Your task to perform on an android device: set default search engine in the chrome app Image 0: 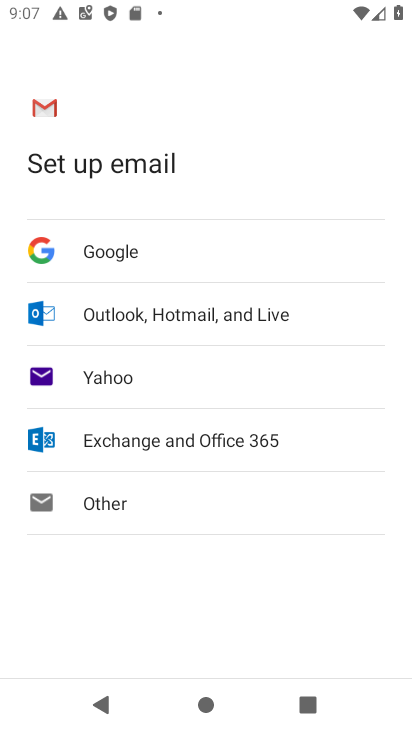
Step 0: press home button
Your task to perform on an android device: set default search engine in the chrome app Image 1: 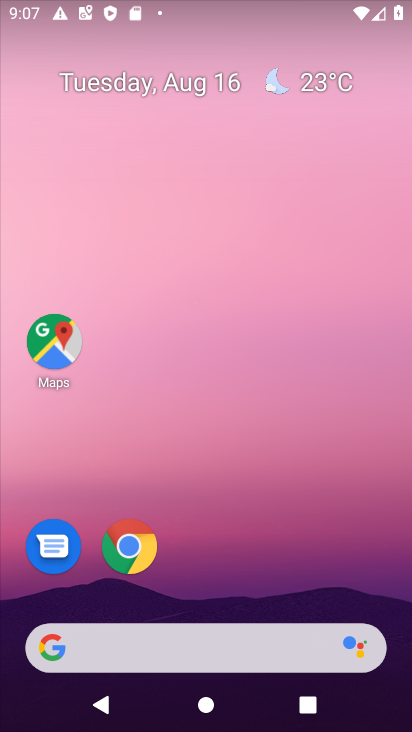
Step 1: click (132, 548)
Your task to perform on an android device: set default search engine in the chrome app Image 2: 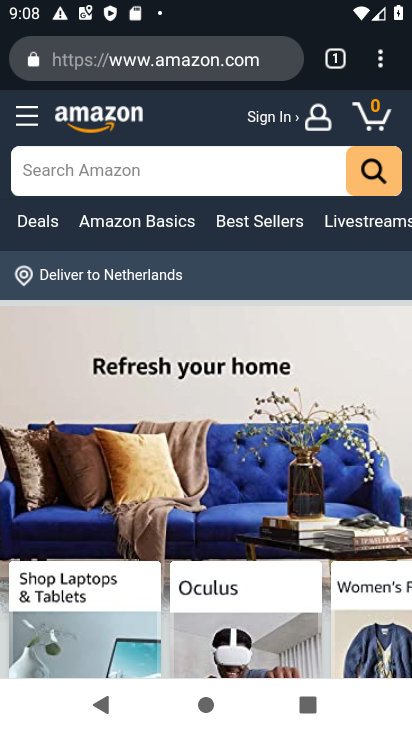
Step 2: click (382, 63)
Your task to perform on an android device: set default search engine in the chrome app Image 3: 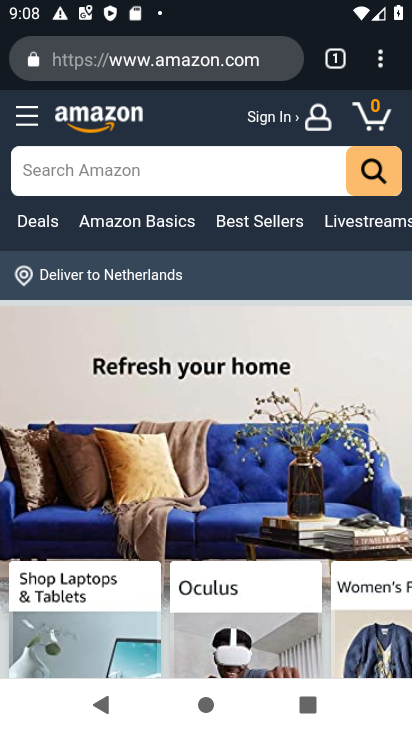
Step 3: click (382, 69)
Your task to perform on an android device: set default search engine in the chrome app Image 4: 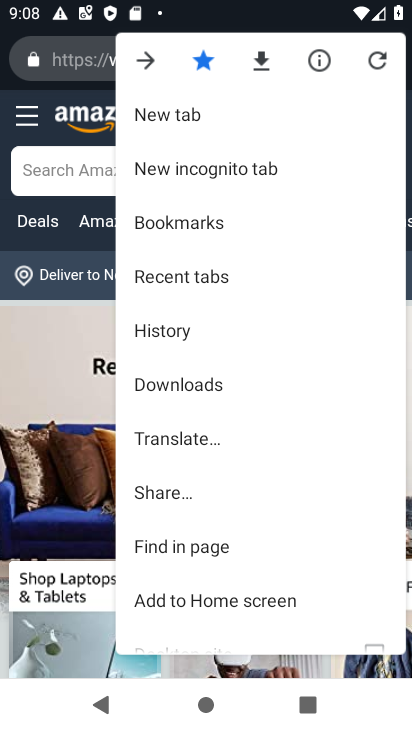
Step 4: drag from (254, 549) to (266, 121)
Your task to perform on an android device: set default search engine in the chrome app Image 5: 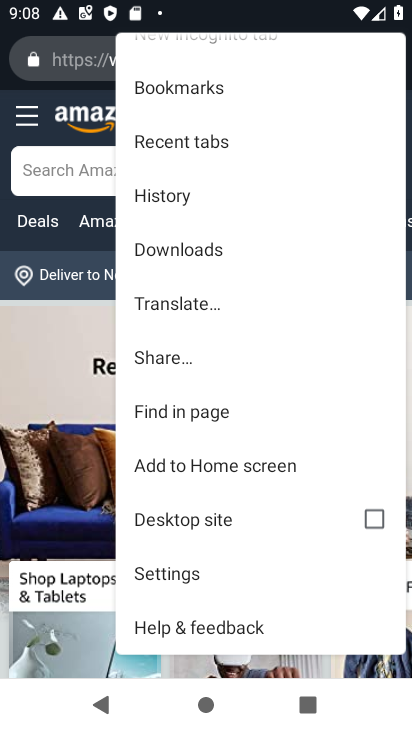
Step 5: click (204, 570)
Your task to perform on an android device: set default search engine in the chrome app Image 6: 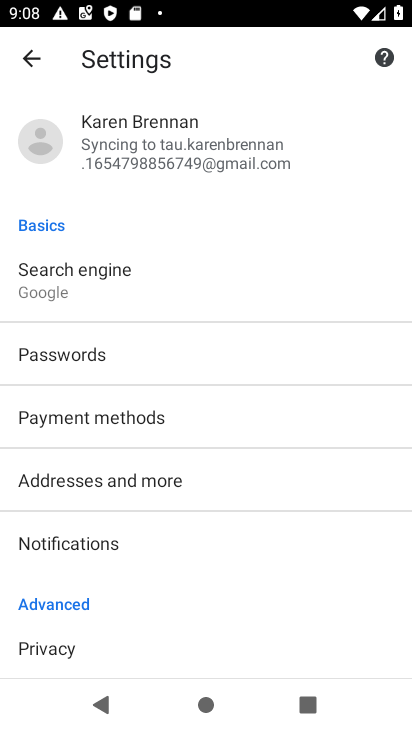
Step 6: click (81, 280)
Your task to perform on an android device: set default search engine in the chrome app Image 7: 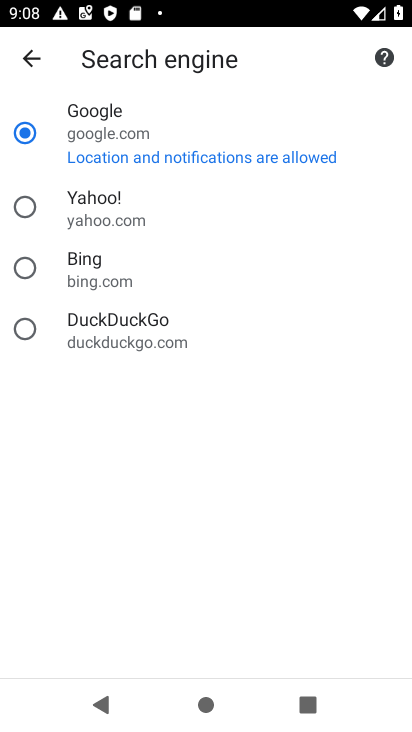
Step 7: task complete